Your task to perform on an android device: turn off improve location accuracy Image 0: 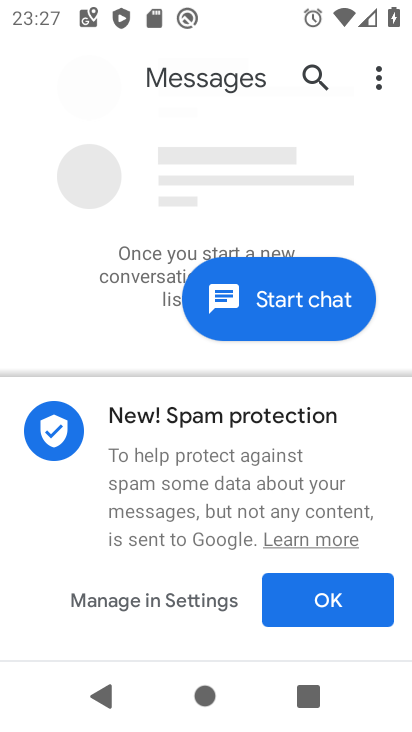
Step 0: press back button
Your task to perform on an android device: turn off improve location accuracy Image 1: 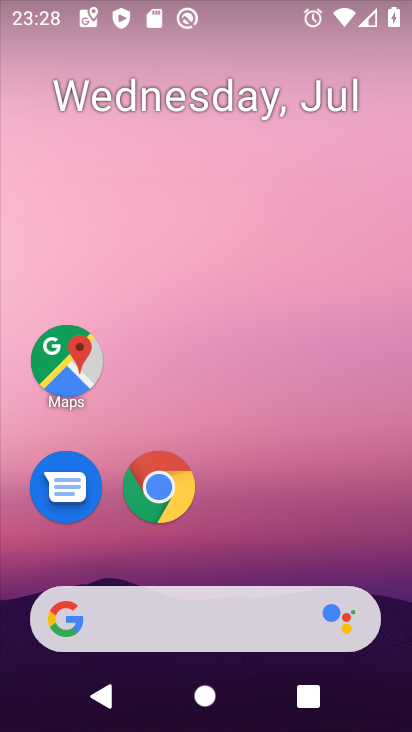
Step 1: drag from (267, 518) to (306, 87)
Your task to perform on an android device: turn off improve location accuracy Image 2: 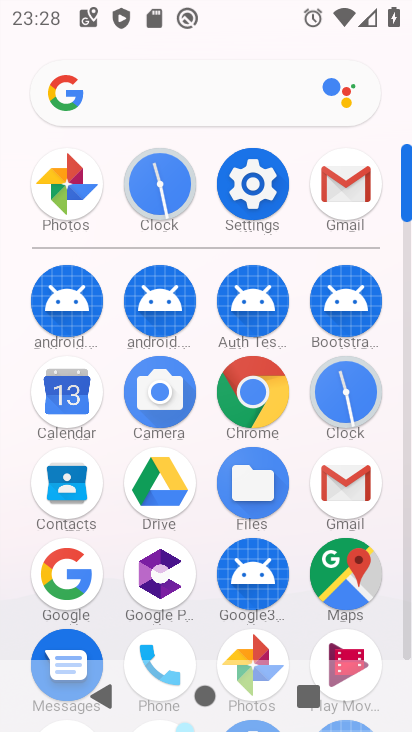
Step 2: click (259, 179)
Your task to perform on an android device: turn off improve location accuracy Image 3: 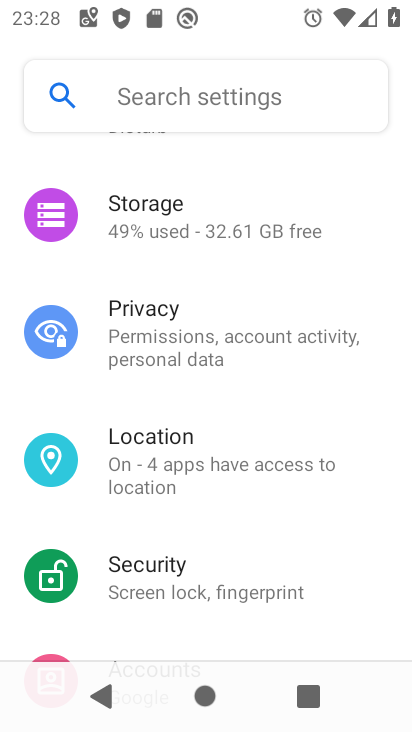
Step 3: click (193, 457)
Your task to perform on an android device: turn off improve location accuracy Image 4: 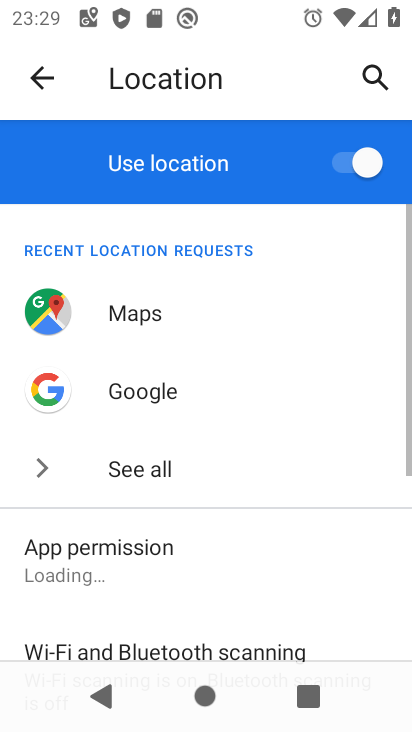
Step 4: drag from (99, 623) to (229, 115)
Your task to perform on an android device: turn off improve location accuracy Image 5: 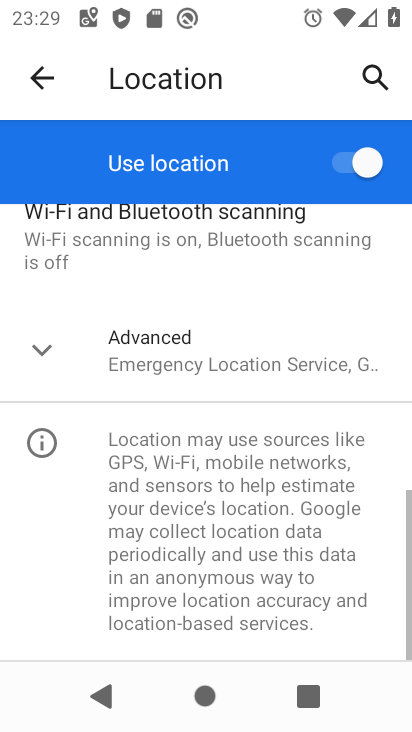
Step 5: click (197, 370)
Your task to perform on an android device: turn off improve location accuracy Image 6: 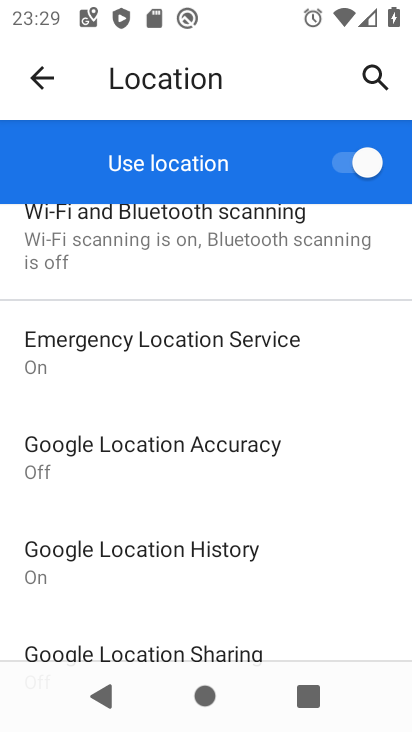
Step 6: click (175, 451)
Your task to perform on an android device: turn off improve location accuracy Image 7: 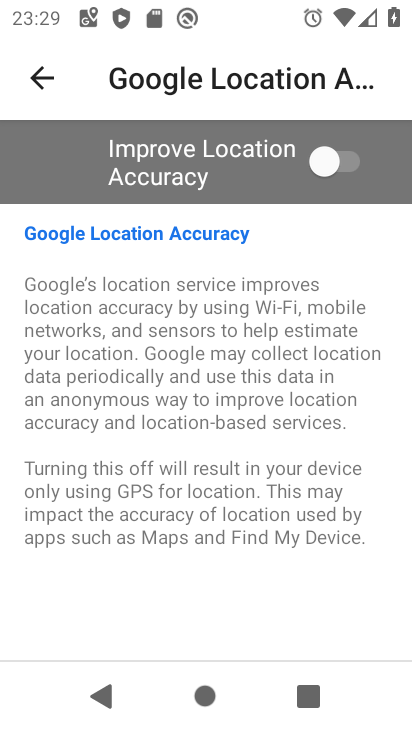
Step 7: task complete